Your task to perform on an android device: Open display settings Image 0: 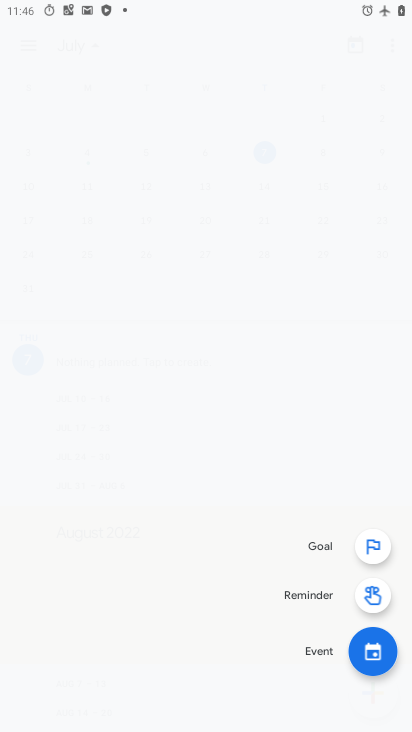
Step 0: press home button
Your task to perform on an android device: Open display settings Image 1: 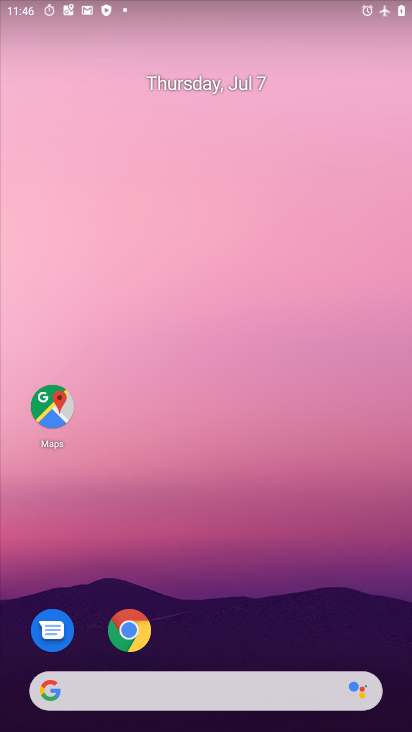
Step 1: drag from (232, 646) to (223, 168)
Your task to perform on an android device: Open display settings Image 2: 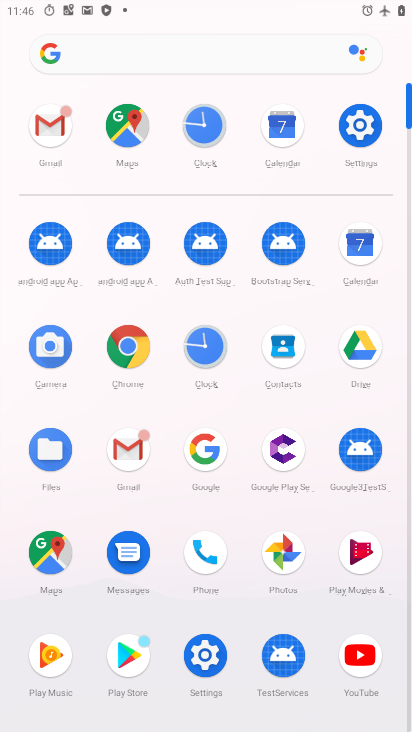
Step 2: click (347, 137)
Your task to perform on an android device: Open display settings Image 3: 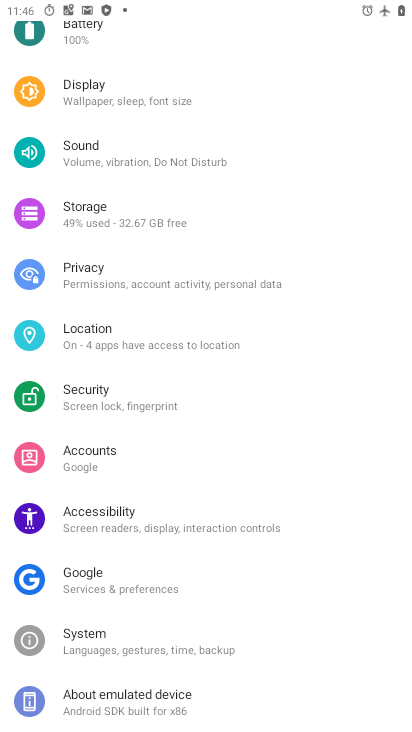
Step 3: click (187, 105)
Your task to perform on an android device: Open display settings Image 4: 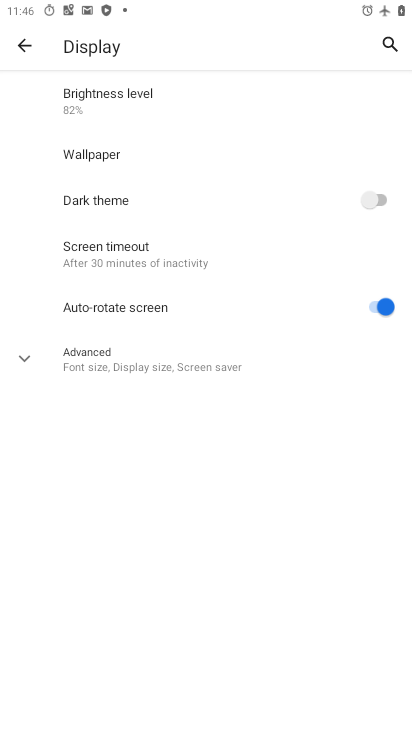
Step 4: task complete